Your task to perform on an android device: toggle sleep mode Image 0: 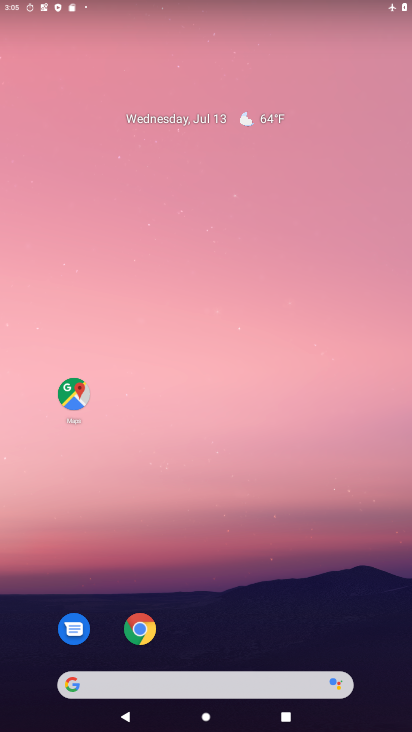
Step 0: drag from (267, 542) to (260, 26)
Your task to perform on an android device: toggle sleep mode Image 1: 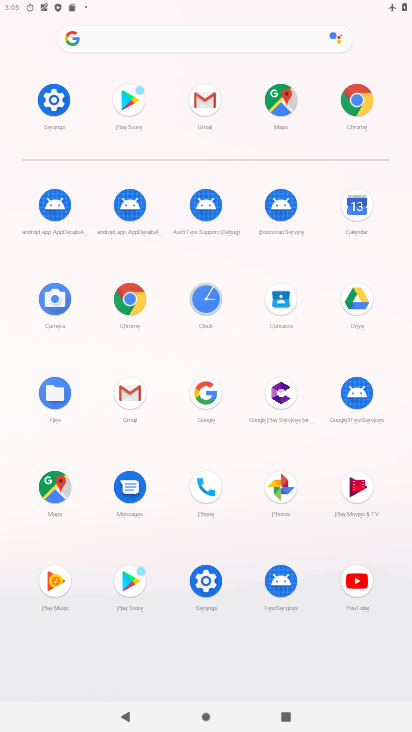
Step 1: click (50, 96)
Your task to perform on an android device: toggle sleep mode Image 2: 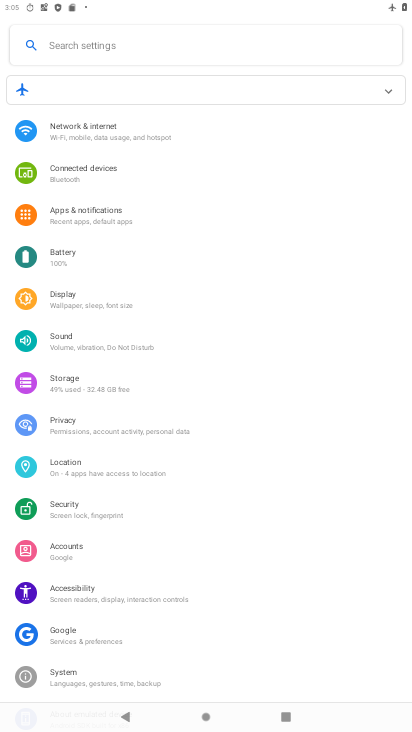
Step 2: click (99, 346)
Your task to perform on an android device: toggle sleep mode Image 3: 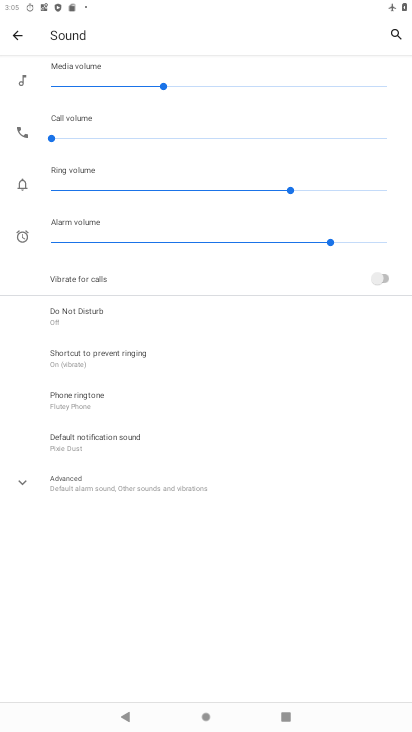
Step 3: task complete